Your task to perform on an android device: change the clock style Image 0: 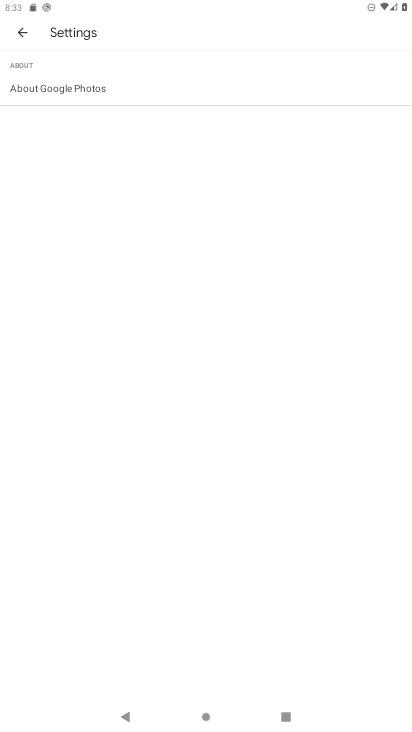
Step 0: press home button
Your task to perform on an android device: change the clock style Image 1: 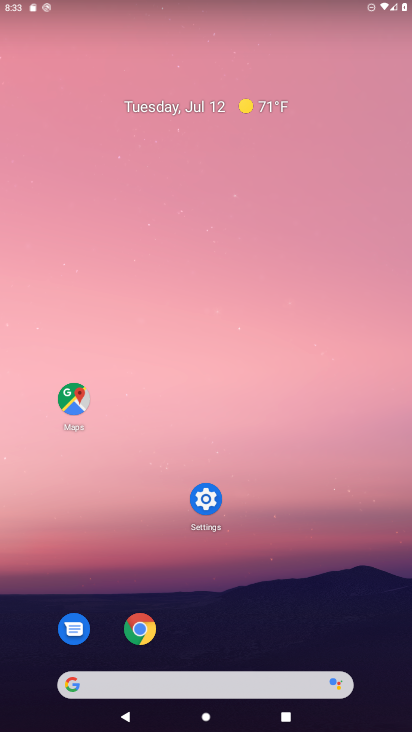
Step 1: drag from (376, 709) to (293, 82)
Your task to perform on an android device: change the clock style Image 2: 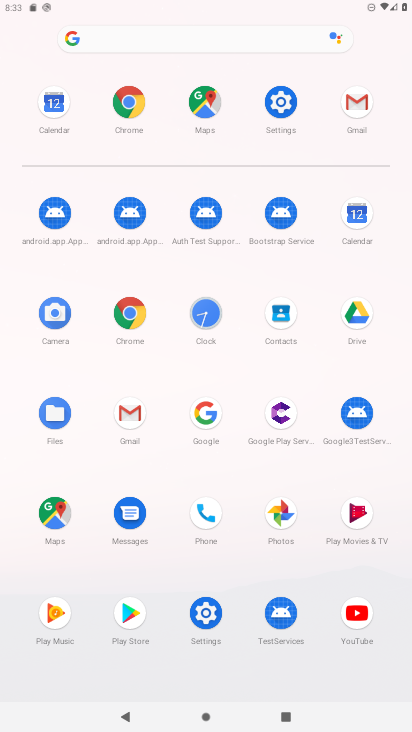
Step 2: click (201, 317)
Your task to perform on an android device: change the clock style Image 3: 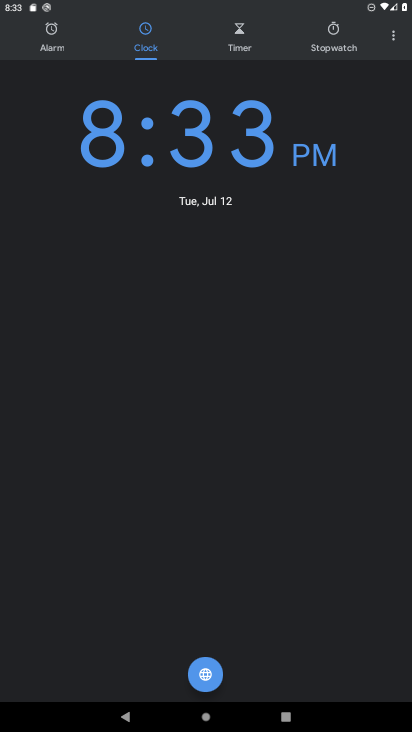
Step 3: click (391, 38)
Your task to perform on an android device: change the clock style Image 4: 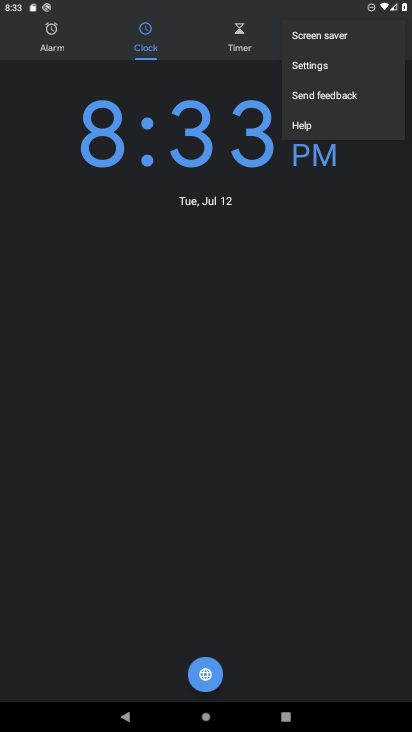
Step 4: click (304, 62)
Your task to perform on an android device: change the clock style Image 5: 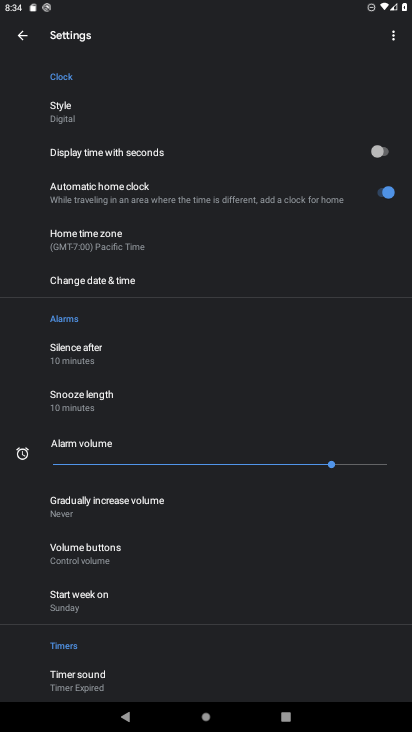
Step 5: click (59, 112)
Your task to perform on an android device: change the clock style Image 6: 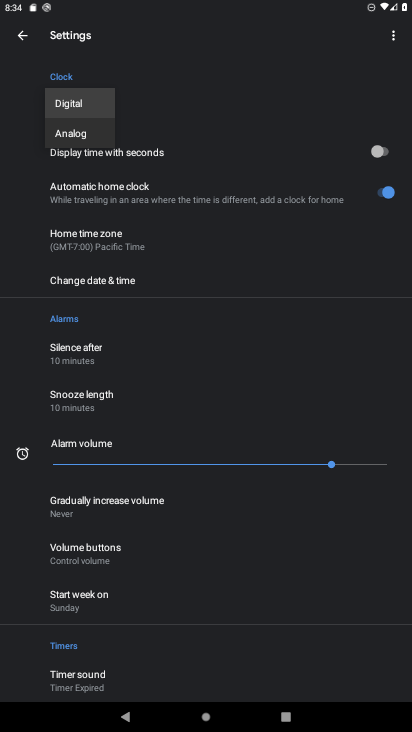
Step 6: click (84, 130)
Your task to perform on an android device: change the clock style Image 7: 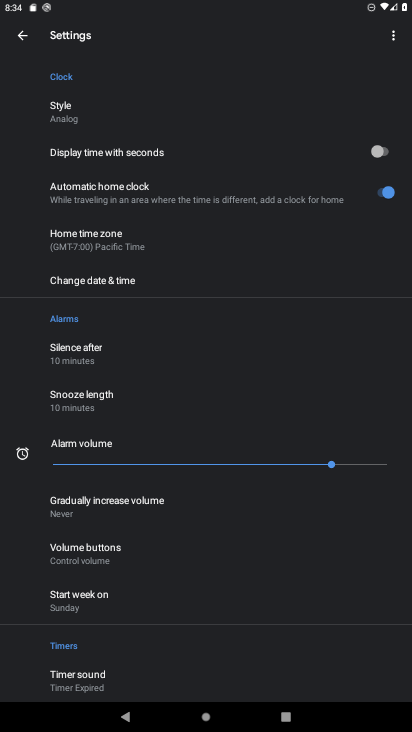
Step 7: task complete